Your task to perform on an android device: create a new album in the google photos Image 0: 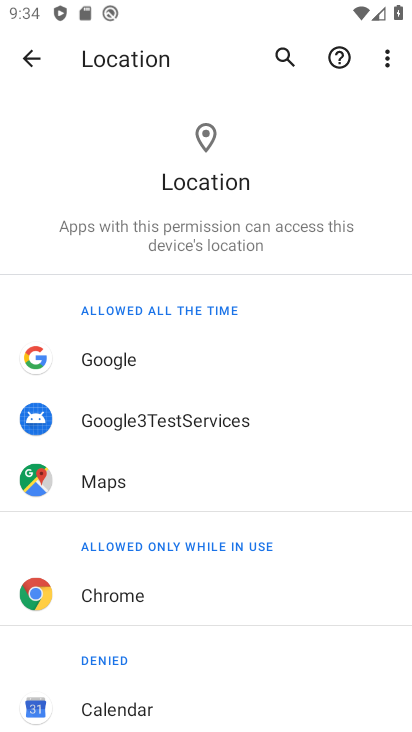
Step 0: press home button
Your task to perform on an android device: create a new album in the google photos Image 1: 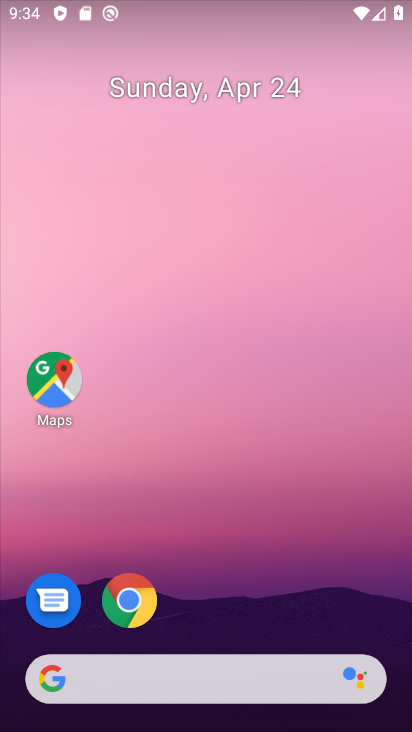
Step 1: drag from (186, 508) to (249, 8)
Your task to perform on an android device: create a new album in the google photos Image 2: 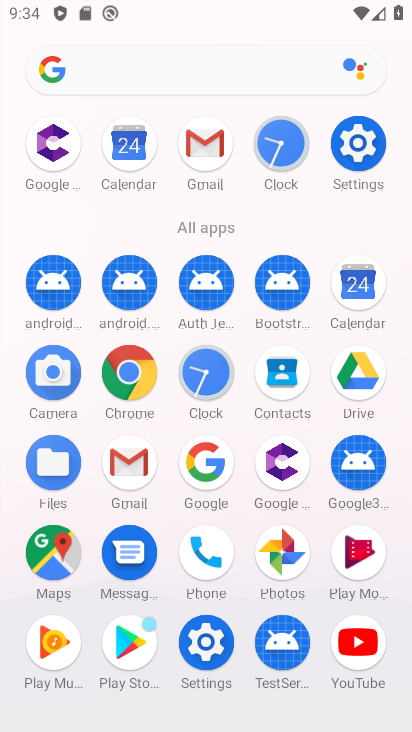
Step 2: click (275, 553)
Your task to perform on an android device: create a new album in the google photos Image 3: 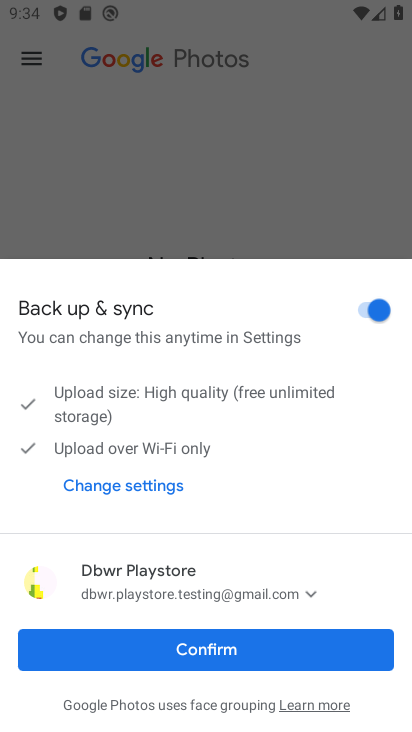
Step 3: click (201, 645)
Your task to perform on an android device: create a new album in the google photos Image 4: 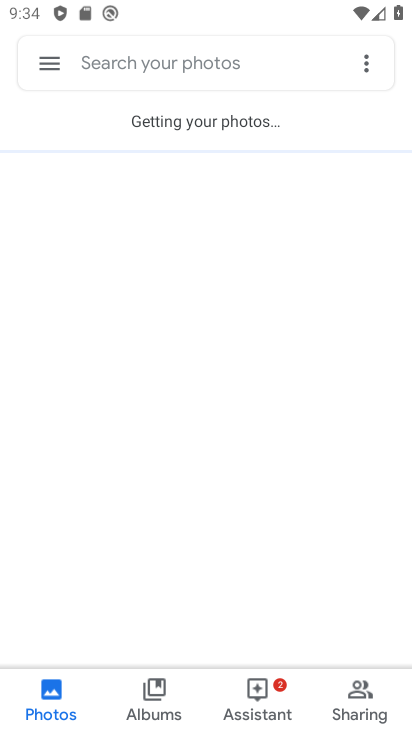
Step 4: click (149, 688)
Your task to perform on an android device: create a new album in the google photos Image 5: 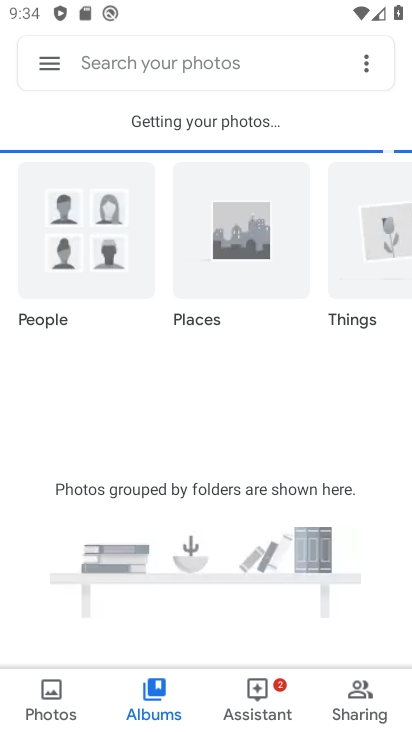
Step 5: drag from (159, 450) to (213, 105)
Your task to perform on an android device: create a new album in the google photos Image 6: 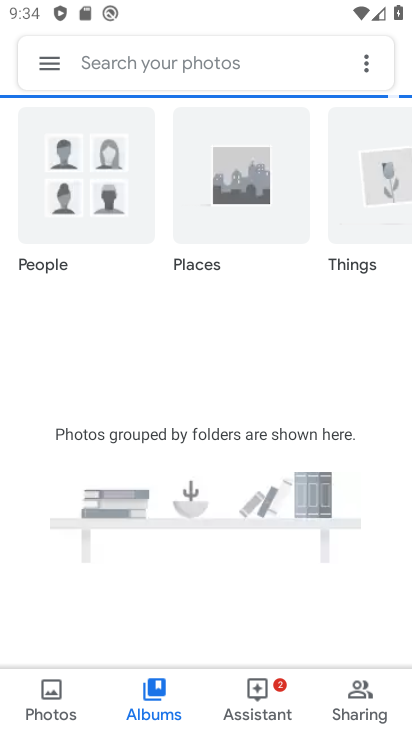
Step 6: drag from (226, 329) to (185, 645)
Your task to perform on an android device: create a new album in the google photos Image 7: 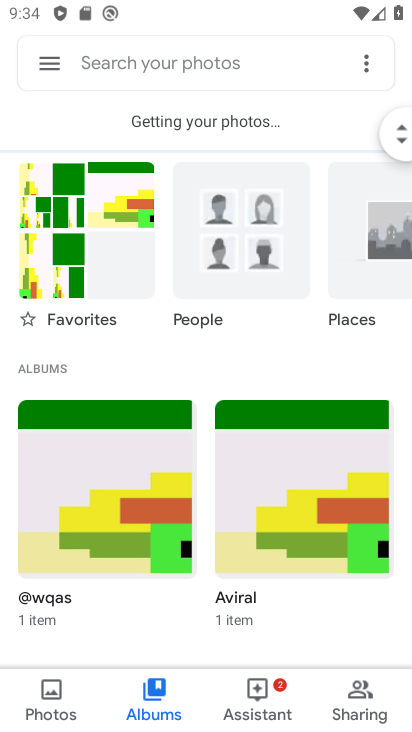
Step 7: drag from (175, 466) to (179, 226)
Your task to perform on an android device: create a new album in the google photos Image 8: 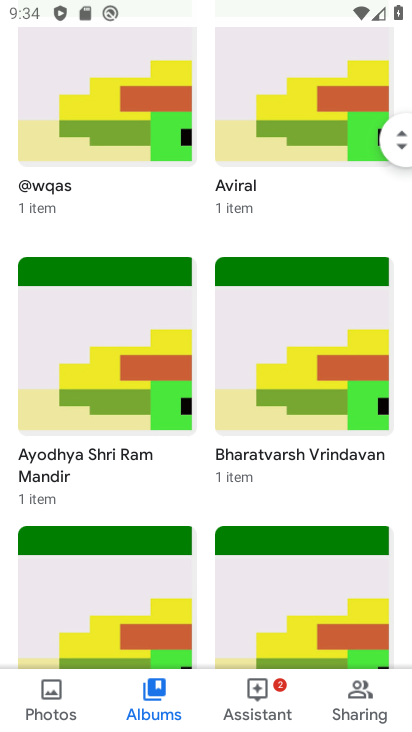
Step 8: drag from (199, 471) to (270, 60)
Your task to perform on an android device: create a new album in the google photos Image 9: 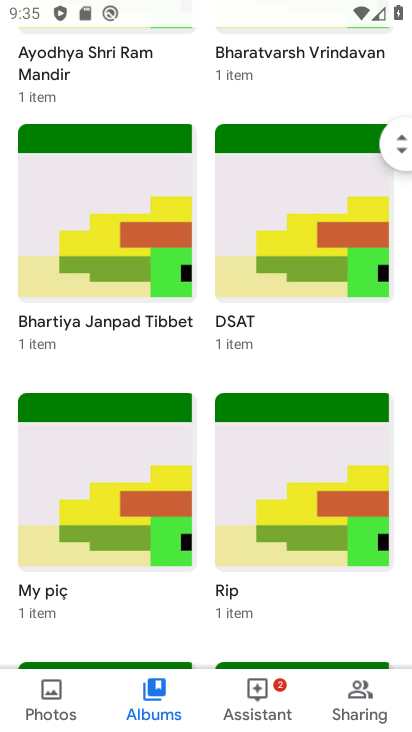
Step 9: drag from (196, 455) to (246, 0)
Your task to perform on an android device: create a new album in the google photos Image 10: 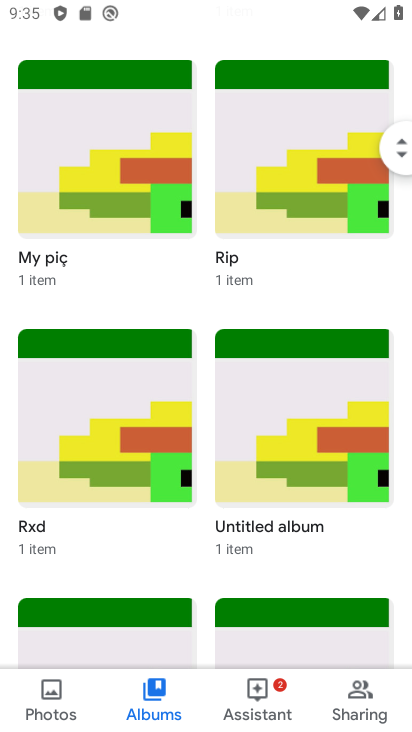
Step 10: drag from (230, 188) to (203, 697)
Your task to perform on an android device: create a new album in the google photos Image 11: 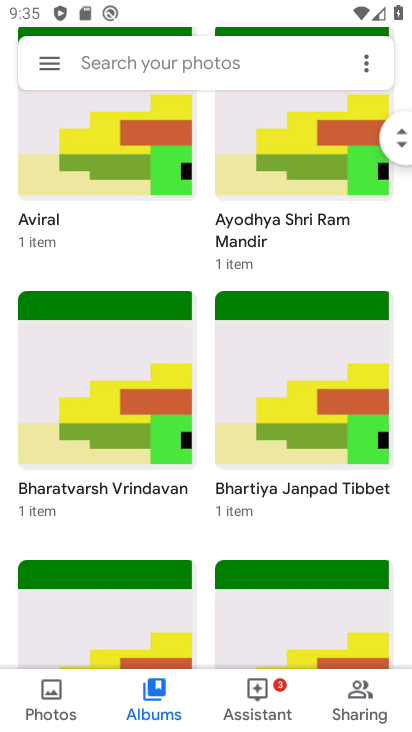
Step 11: drag from (207, 335) to (122, 722)
Your task to perform on an android device: create a new album in the google photos Image 12: 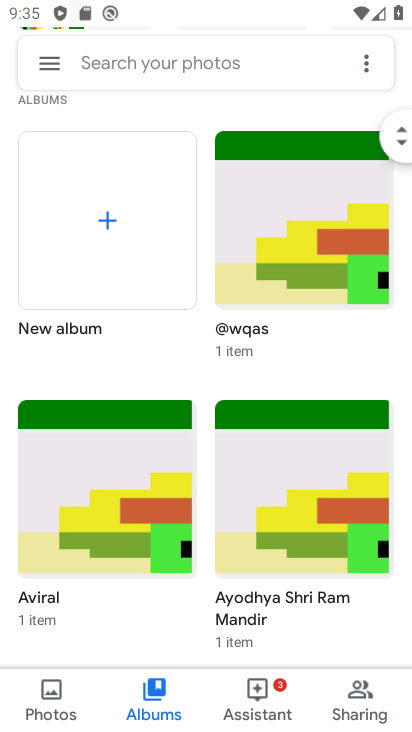
Step 12: click (92, 226)
Your task to perform on an android device: create a new album in the google photos Image 13: 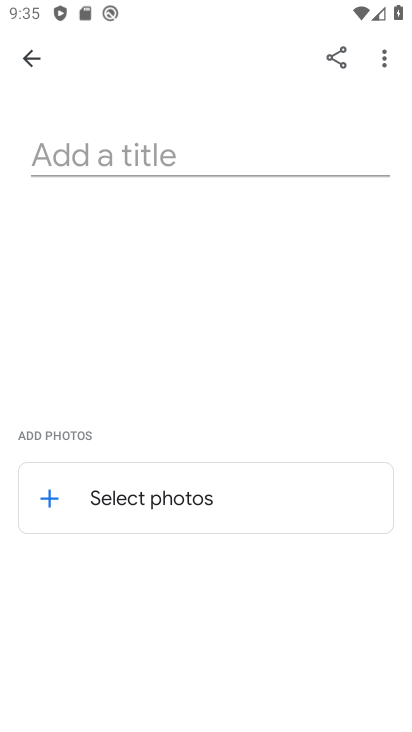
Step 13: click (168, 139)
Your task to perform on an android device: create a new album in the google photos Image 14: 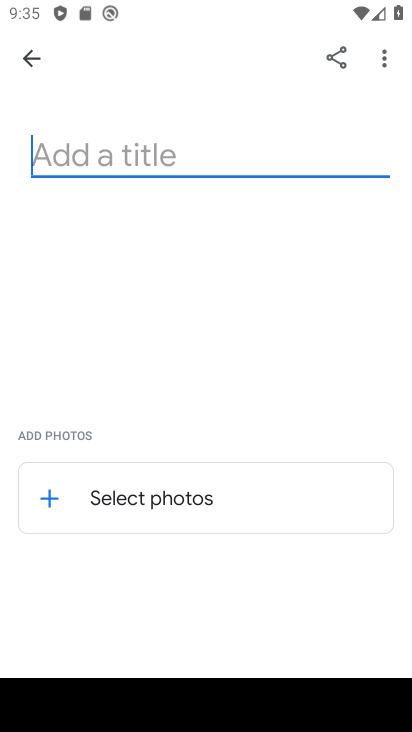
Step 14: type "@!#wqa"
Your task to perform on an android device: create a new album in the google photos Image 15: 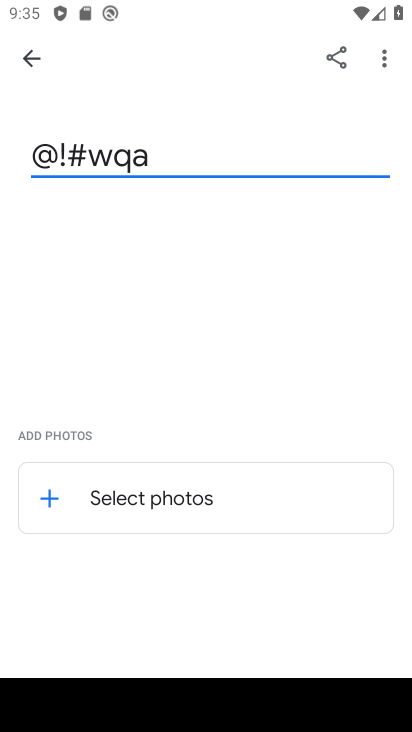
Step 15: click (45, 492)
Your task to perform on an android device: create a new album in the google photos Image 16: 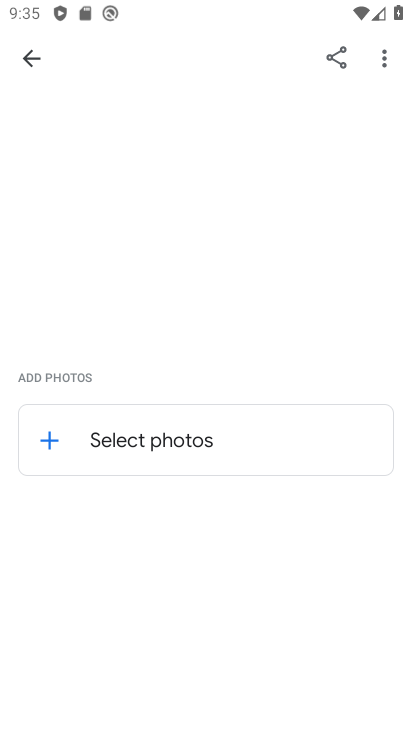
Step 16: click (48, 446)
Your task to perform on an android device: create a new album in the google photos Image 17: 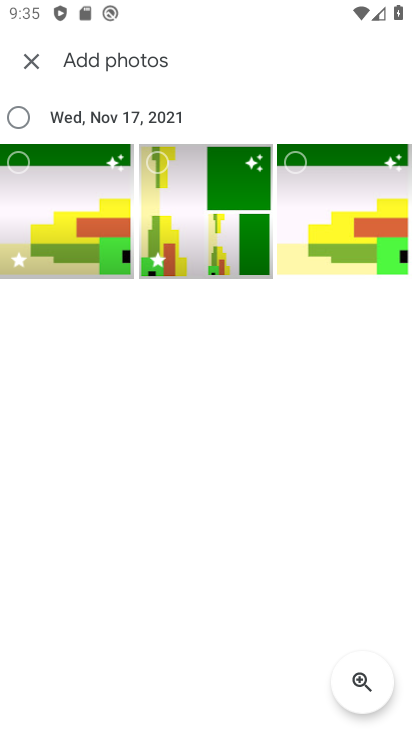
Step 17: click (21, 178)
Your task to perform on an android device: create a new album in the google photos Image 18: 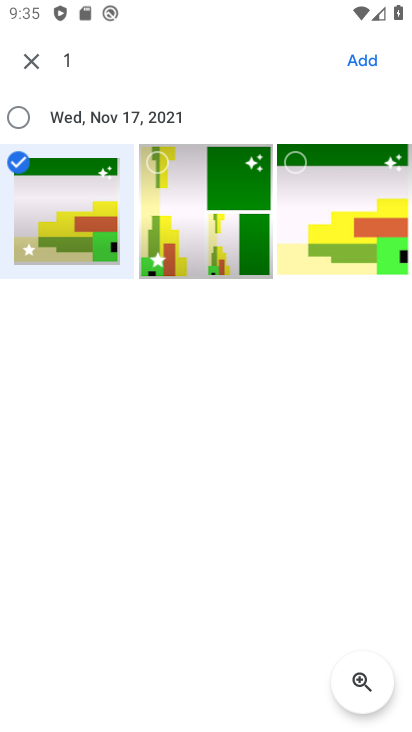
Step 18: click (333, 188)
Your task to perform on an android device: create a new album in the google photos Image 19: 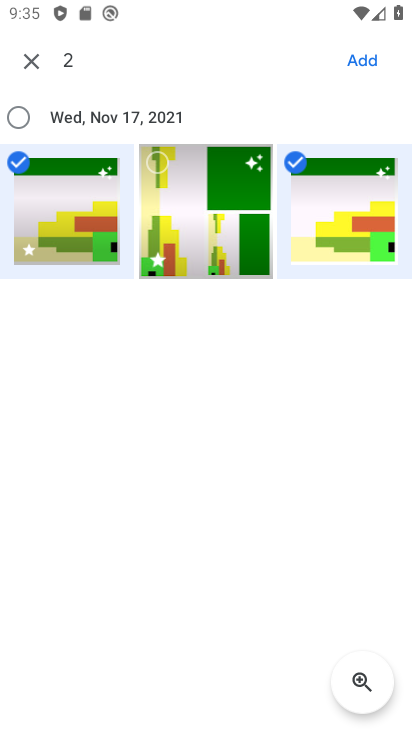
Step 19: click (362, 52)
Your task to perform on an android device: create a new album in the google photos Image 20: 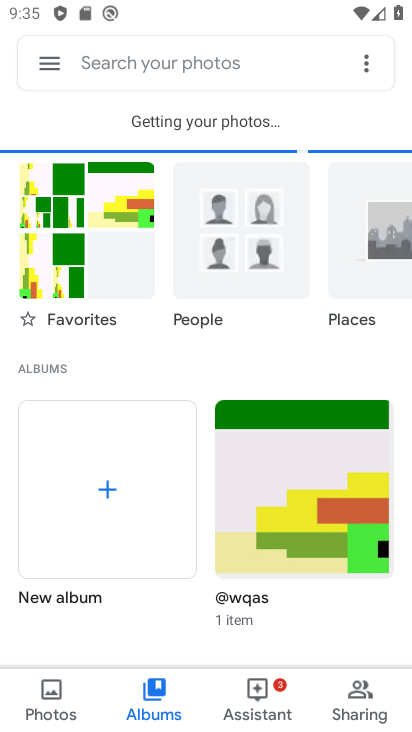
Step 20: click (113, 484)
Your task to perform on an android device: create a new album in the google photos Image 21: 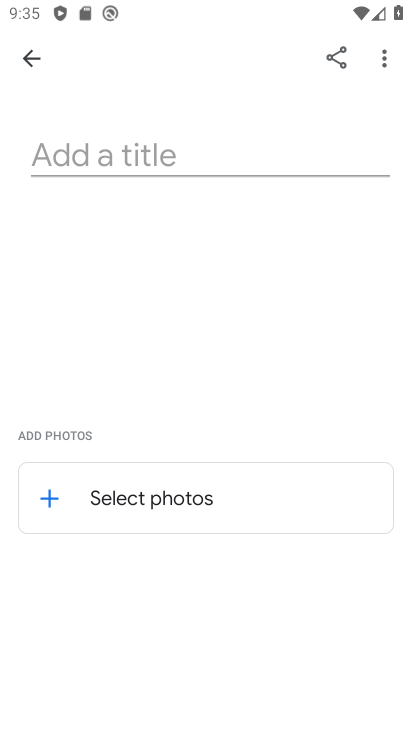
Step 21: click (133, 157)
Your task to perform on an android device: create a new album in the google photos Image 22: 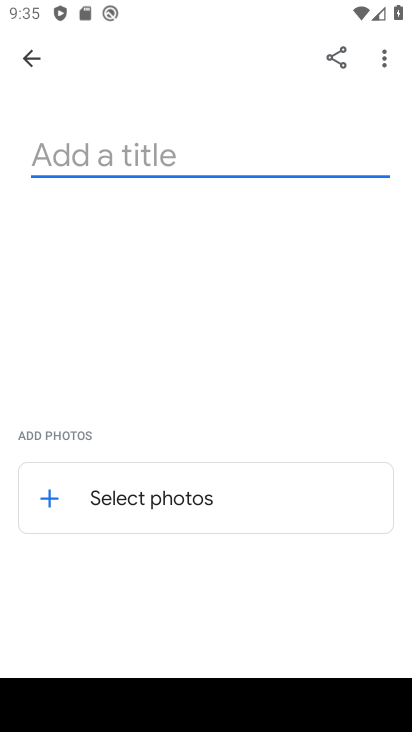
Step 22: type "@!#$"
Your task to perform on an android device: create a new album in the google photos Image 23: 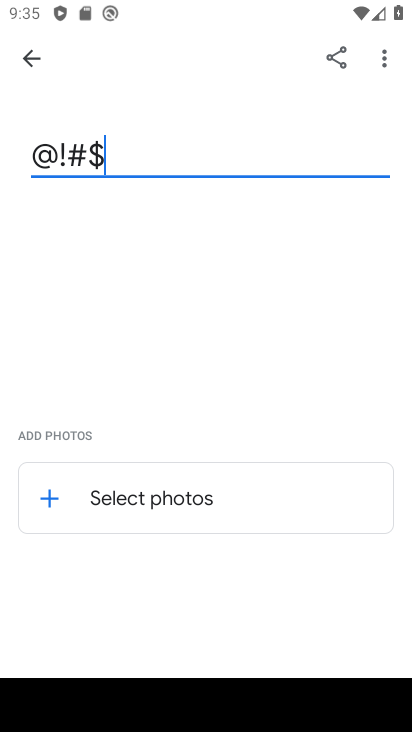
Step 23: click (41, 487)
Your task to perform on an android device: create a new album in the google photos Image 24: 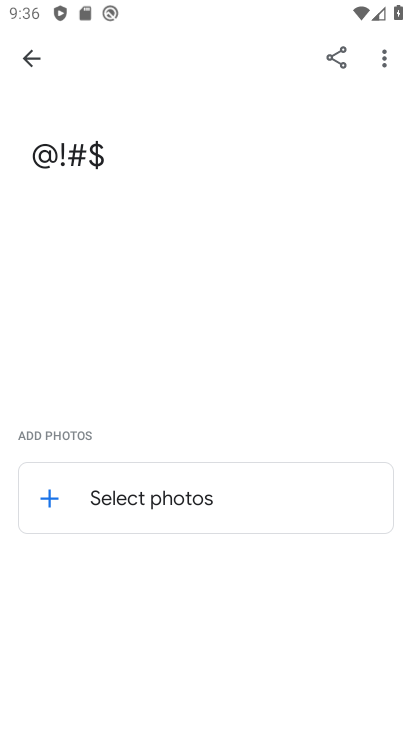
Step 24: click (57, 497)
Your task to perform on an android device: create a new album in the google photos Image 25: 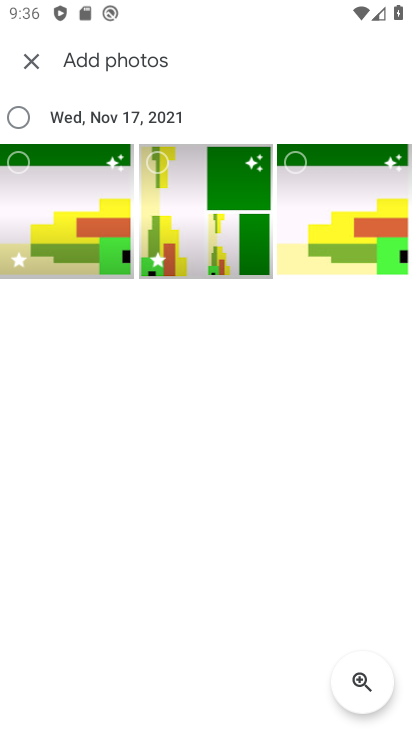
Step 25: click (40, 204)
Your task to perform on an android device: create a new album in the google photos Image 26: 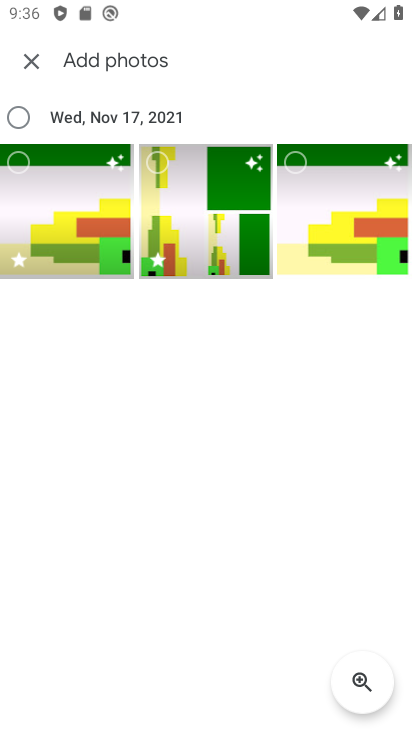
Step 26: click (196, 194)
Your task to perform on an android device: create a new album in the google photos Image 27: 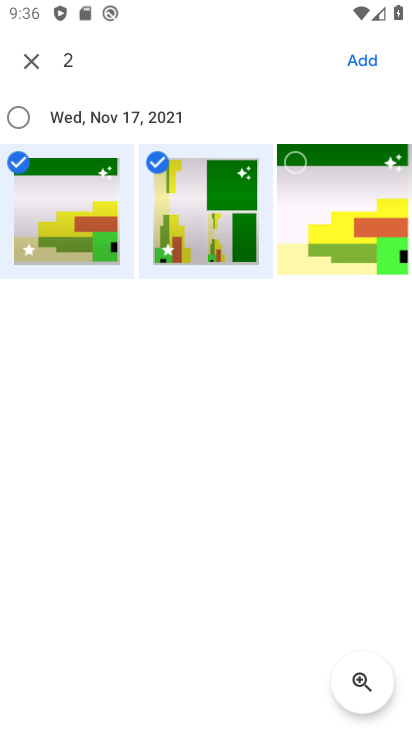
Step 27: click (357, 54)
Your task to perform on an android device: create a new album in the google photos Image 28: 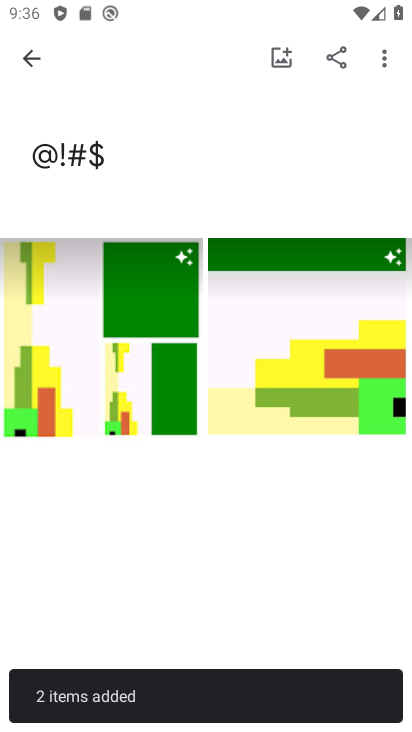
Step 28: task complete